Your task to perform on an android device: What is the news today? Image 0: 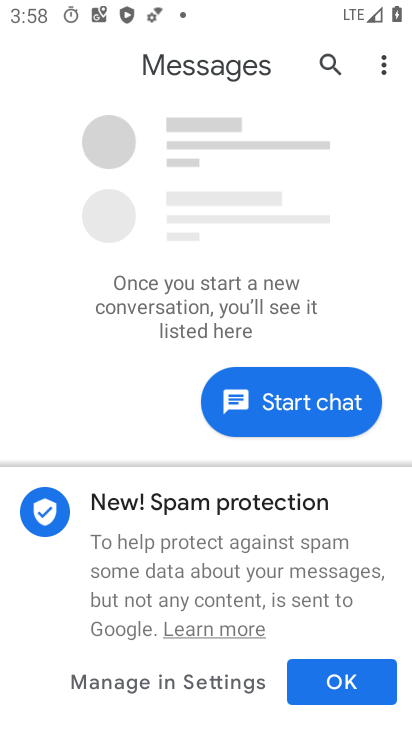
Step 0: press home button
Your task to perform on an android device: What is the news today? Image 1: 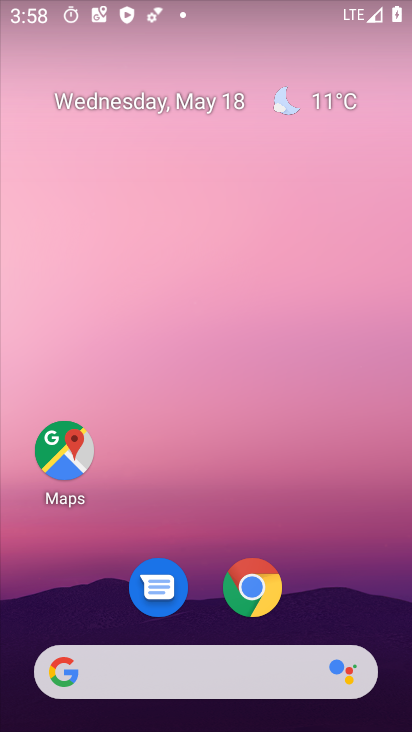
Step 1: drag from (194, 628) to (243, 104)
Your task to perform on an android device: What is the news today? Image 2: 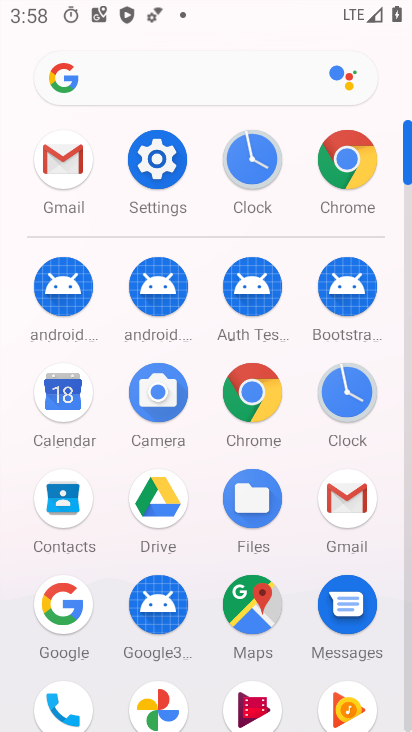
Step 2: click (77, 632)
Your task to perform on an android device: What is the news today? Image 3: 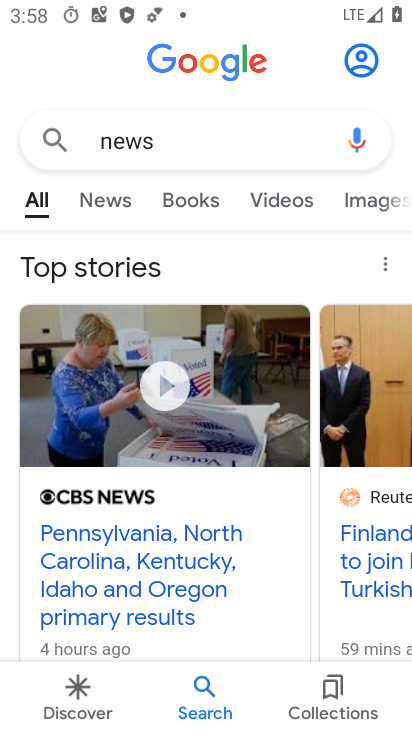
Step 3: task complete